Your task to perform on an android device: Go to Wikipedia Image 0: 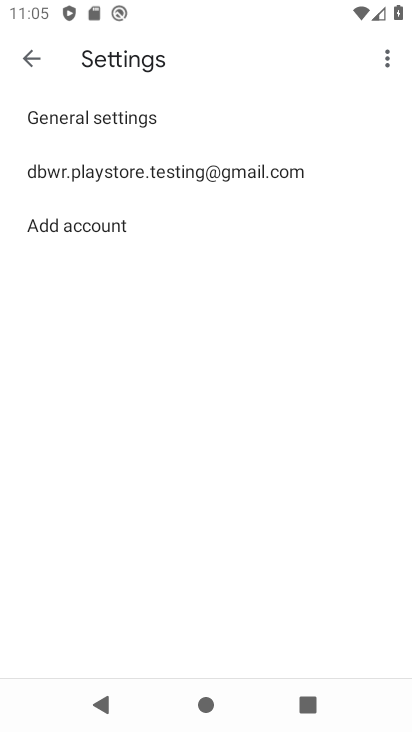
Step 0: press home button
Your task to perform on an android device: Go to Wikipedia Image 1: 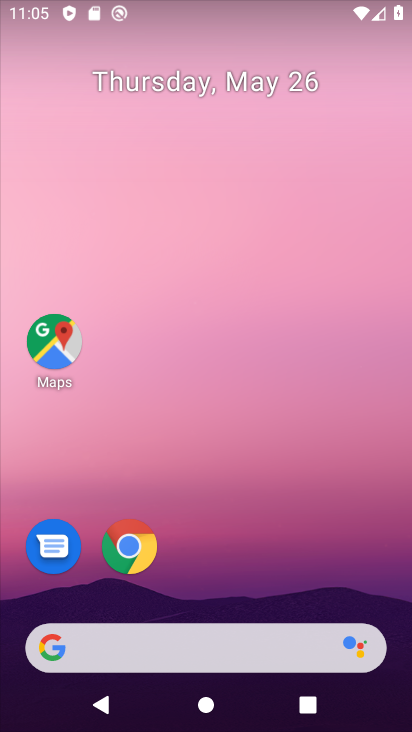
Step 1: click (114, 549)
Your task to perform on an android device: Go to Wikipedia Image 2: 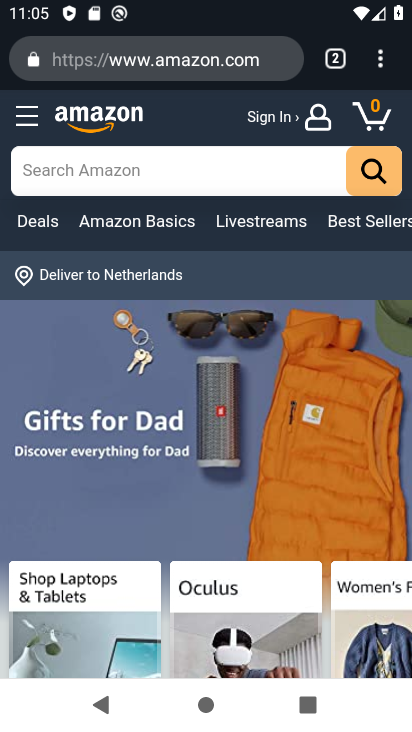
Step 2: press back button
Your task to perform on an android device: Go to Wikipedia Image 3: 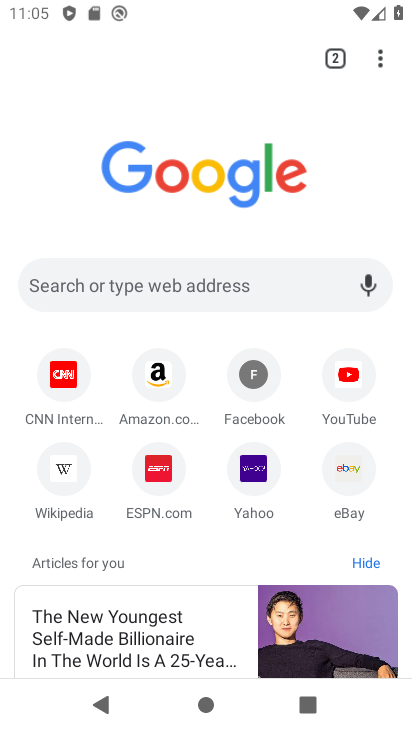
Step 3: click (60, 470)
Your task to perform on an android device: Go to Wikipedia Image 4: 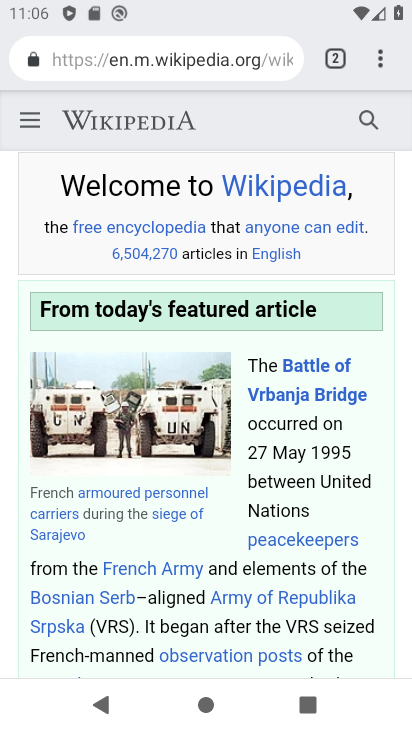
Step 4: task complete